Your task to perform on an android device: find photos in the google photos app Image 0: 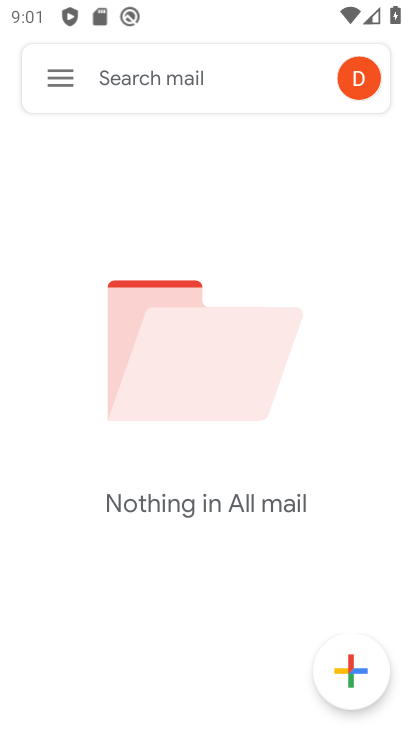
Step 0: press home button
Your task to perform on an android device: find photos in the google photos app Image 1: 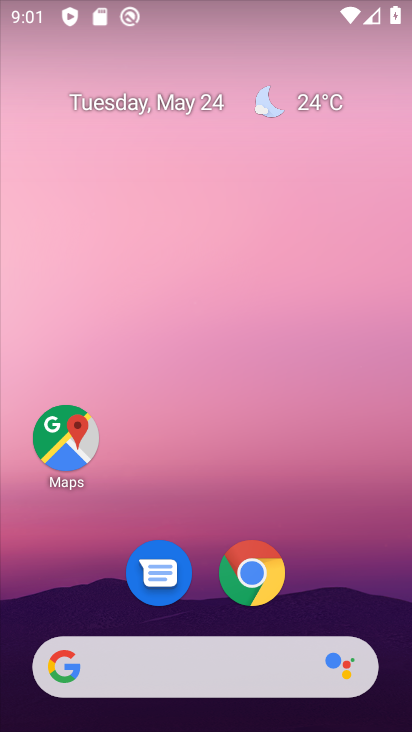
Step 1: drag from (79, 609) to (272, 132)
Your task to perform on an android device: find photos in the google photos app Image 2: 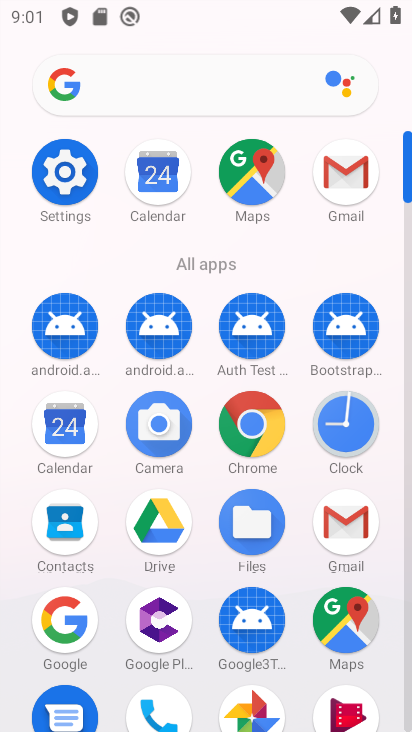
Step 2: drag from (210, 562) to (278, 353)
Your task to perform on an android device: find photos in the google photos app Image 3: 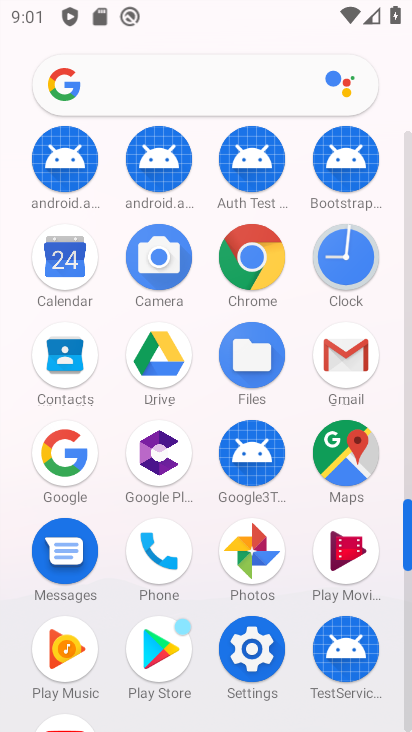
Step 3: click (280, 560)
Your task to perform on an android device: find photos in the google photos app Image 4: 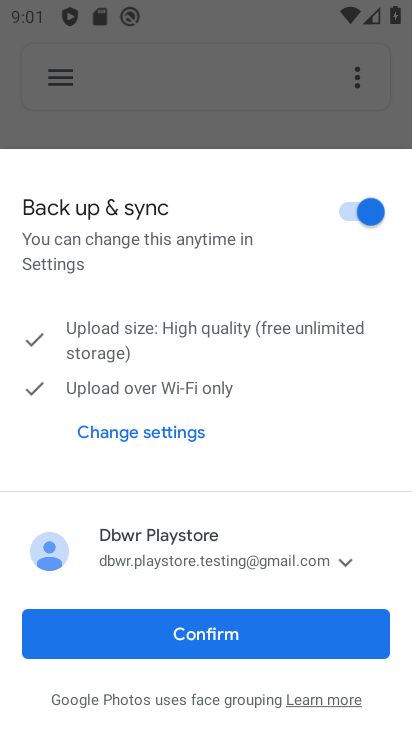
Step 4: click (247, 641)
Your task to perform on an android device: find photos in the google photos app Image 5: 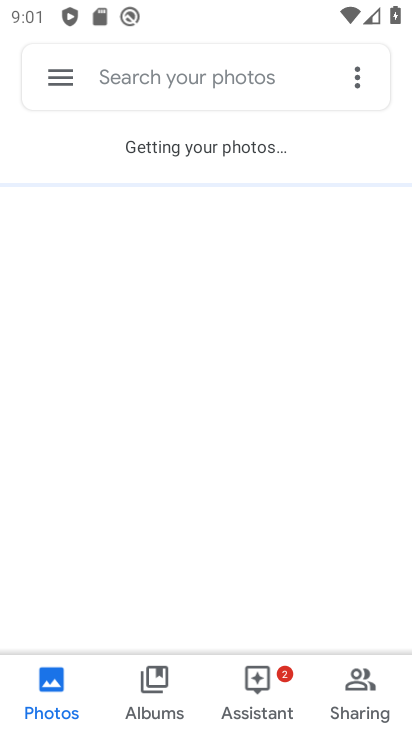
Step 5: click (407, 480)
Your task to perform on an android device: find photos in the google photos app Image 6: 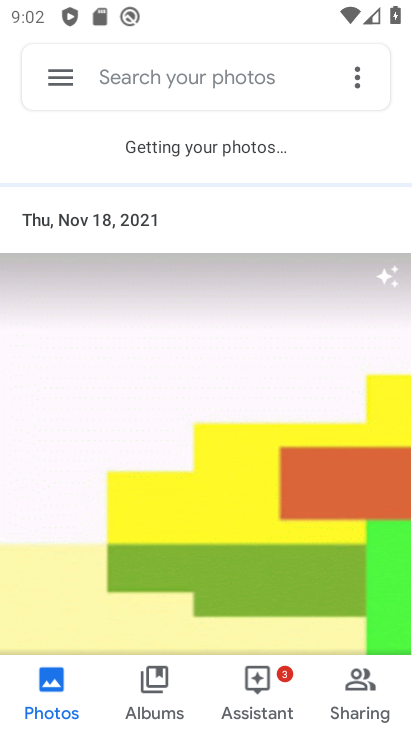
Step 6: task complete